Your task to perform on an android device: turn on bluetooth scan Image 0: 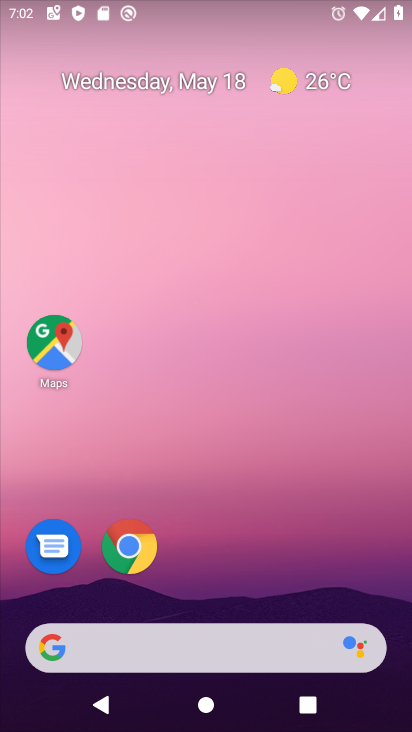
Step 0: drag from (396, 640) to (235, 23)
Your task to perform on an android device: turn on bluetooth scan Image 1: 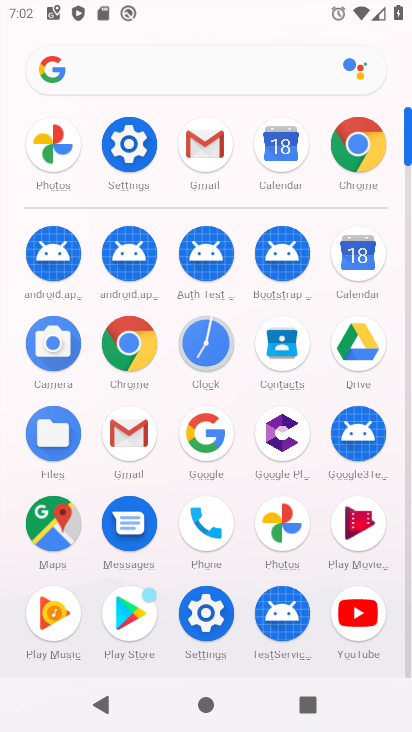
Step 1: click (229, 612)
Your task to perform on an android device: turn on bluetooth scan Image 2: 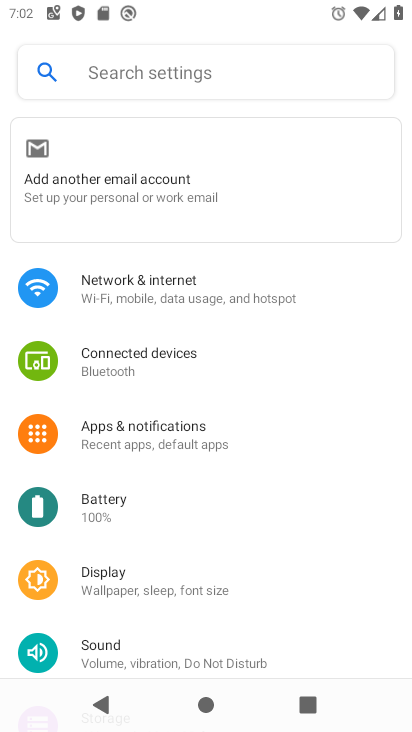
Step 2: drag from (139, 555) to (168, 238)
Your task to perform on an android device: turn on bluetooth scan Image 3: 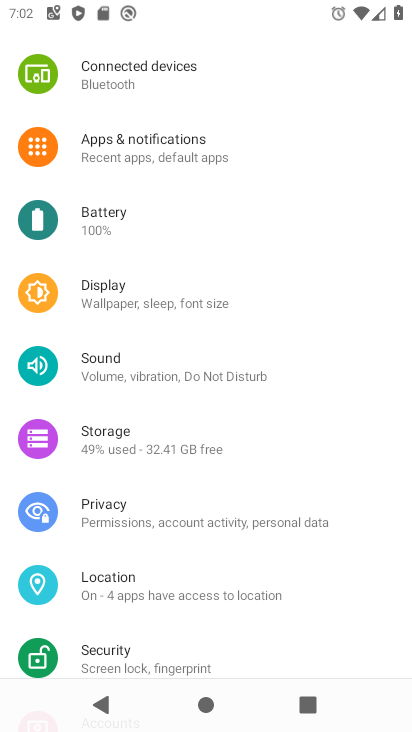
Step 3: click (153, 580)
Your task to perform on an android device: turn on bluetooth scan Image 4: 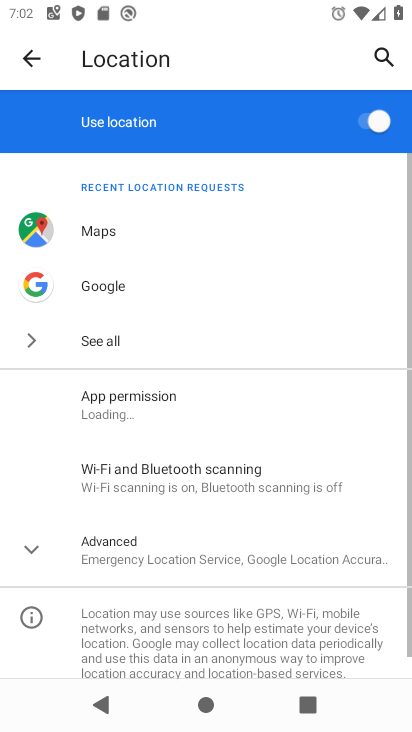
Step 4: click (266, 487)
Your task to perform on an android device: turn on bluetooth scan Image 5: 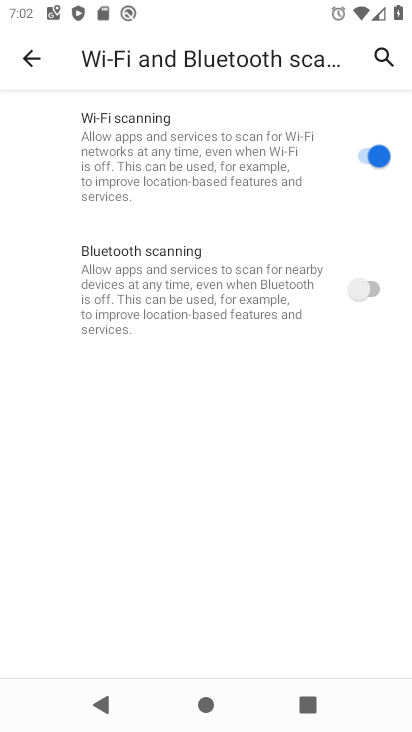
Step 5: click (316, 282)
Your task to perform on an android device: turn on bluetooth scan Image 6: 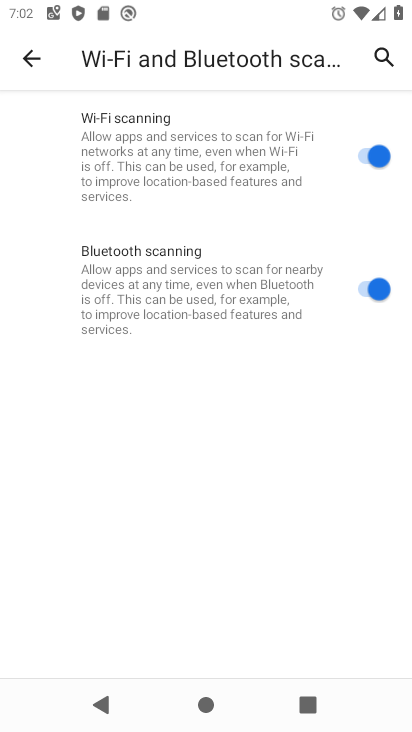
Step 6: task complete